Your task to perform on an android device: What's on my calendar tomorrow? Image 0: 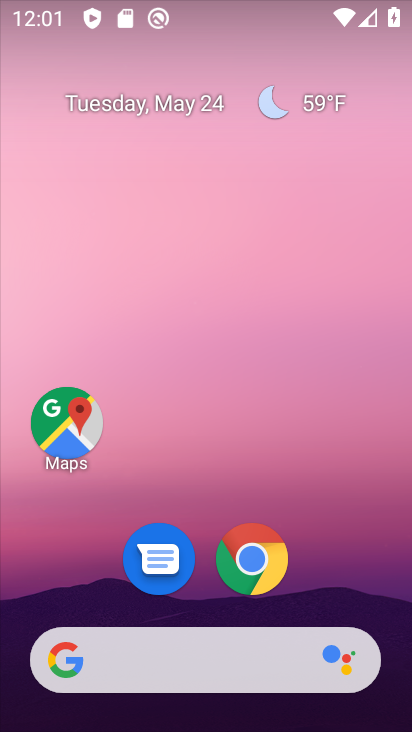
Step 0: drag from (393, 655) to (309, 30)
Your task to perform on an android device: What's on my calendar tomorrow? Image 1: 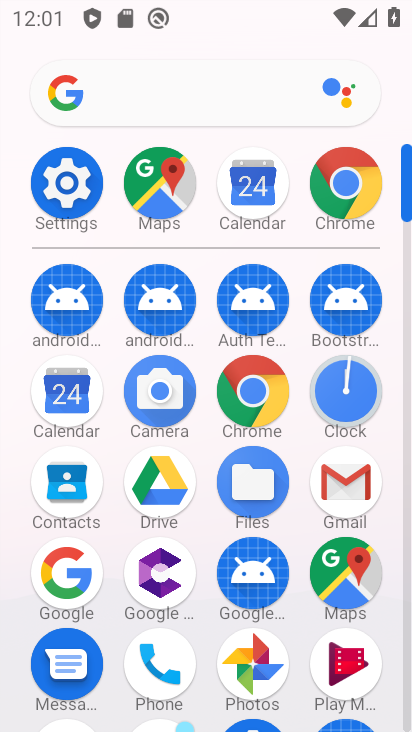
Step 1: click (75, 192)
Your task to perform on an android device: What's on my calendar tomorrow? Image 2: 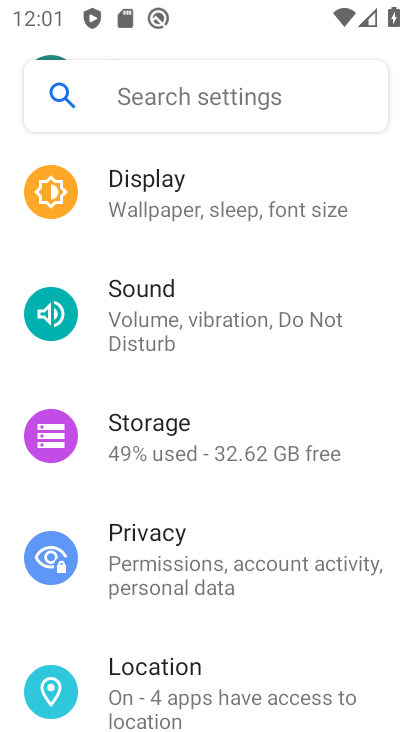
Step 2: press back button
Your task to perform on an android device: What's on my calendar tomorrow? Image 3: 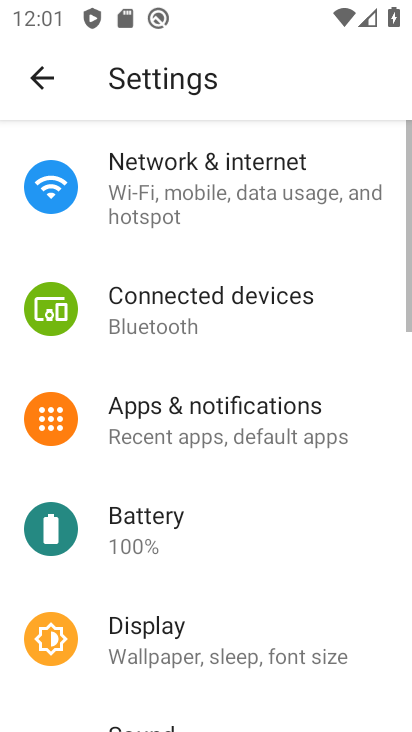
Step 3: press back button
Your task to perform on an android device: What's on my calendar tomorrow? Image 4: 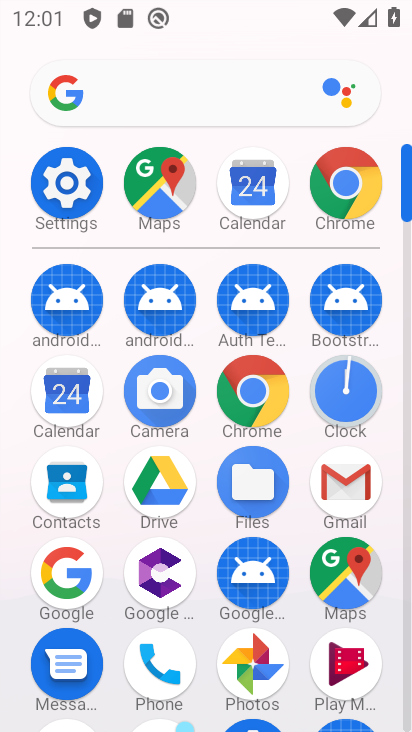
Step 4: click (86, 406)
Your task to perform on an android device: What's on my calendar tomorrow? Image 5: 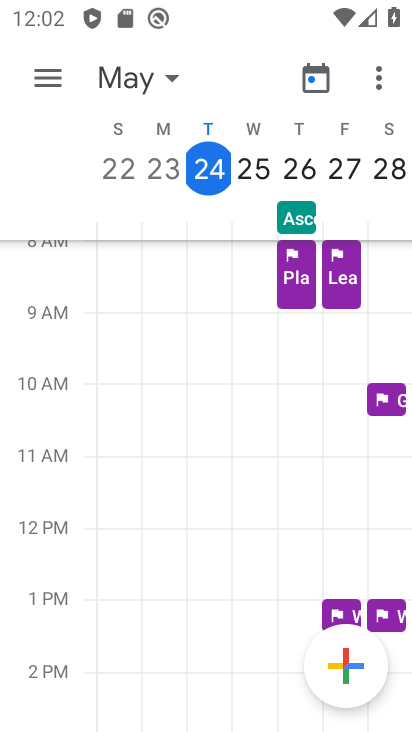
Step 5: click (168, 76)
Your task to perform on an android device: What's on my calendar tomorrow? Image 6: 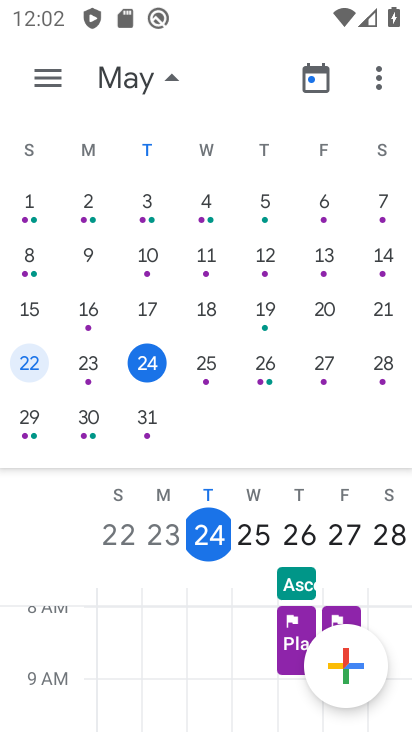
Step 6: click (210, 364)
Your task to perform on an android device: What's on my calendar tomorrow? Image 7: 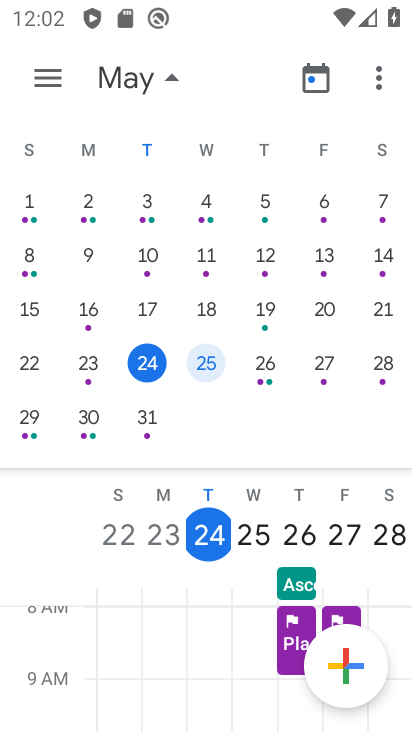
Step 7: click (36, 72)
Your task to perform on an android device: What's on my calendar tomorrow? Image 8: 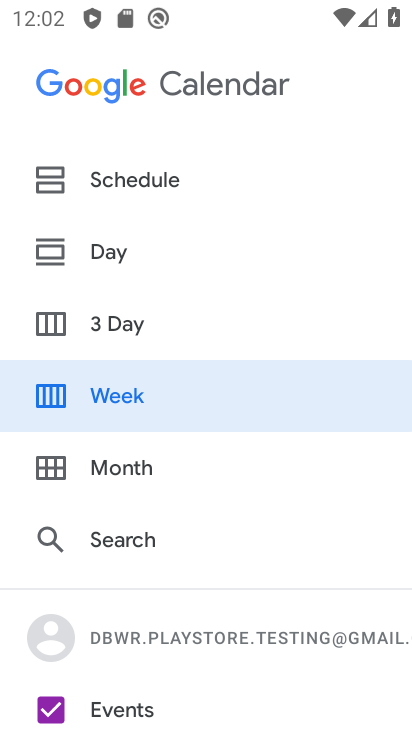
Step 8: click (98, 245)
Your task to perform on an android device: What's on my calendar tomorrow? Image 9: 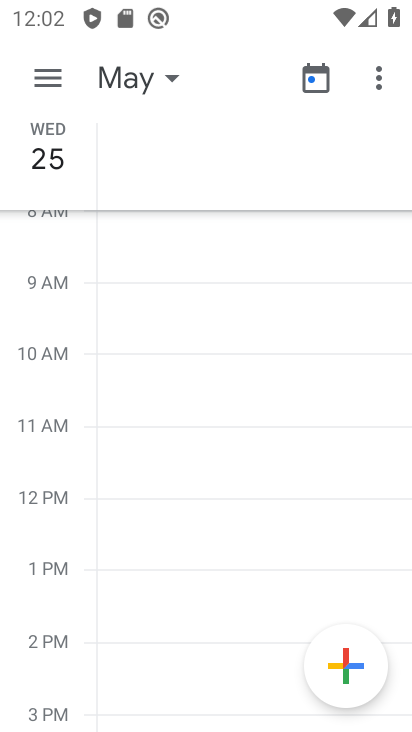
Step 9: task complete